Your task to perform on an android device: Open network settings Image 0: 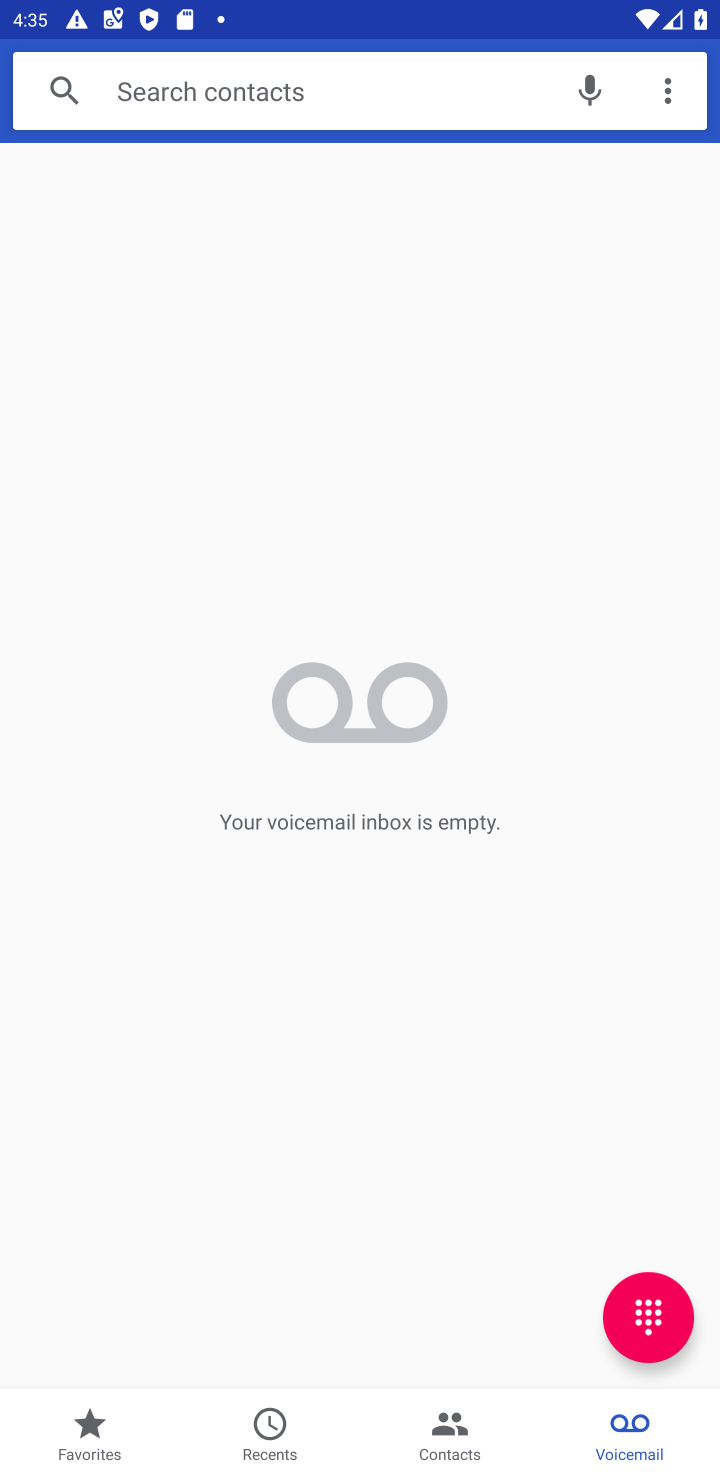
Step 0: press home button
Your task to perform on an android device: Open network settings Image 1: 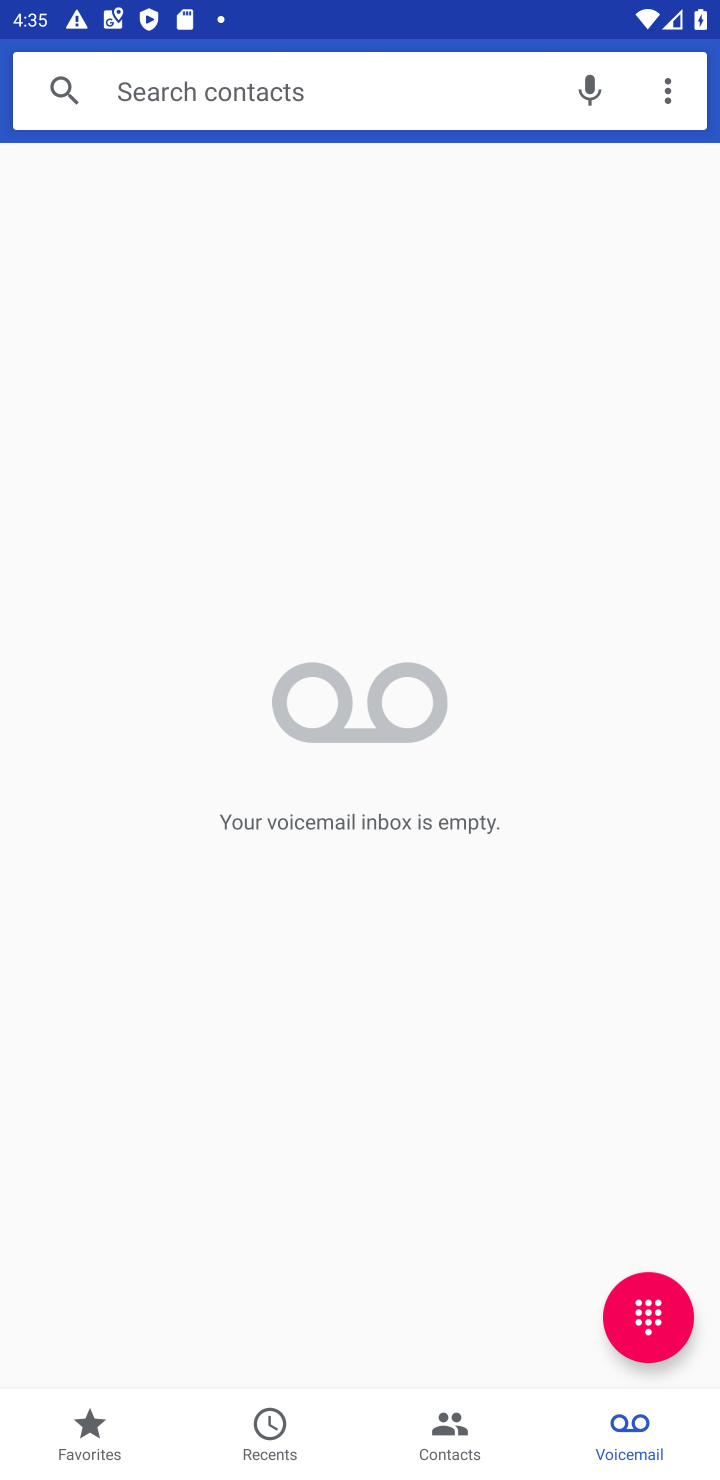
Step 1: press home button
Your task to perform on an android device: Open network settings Image 2: 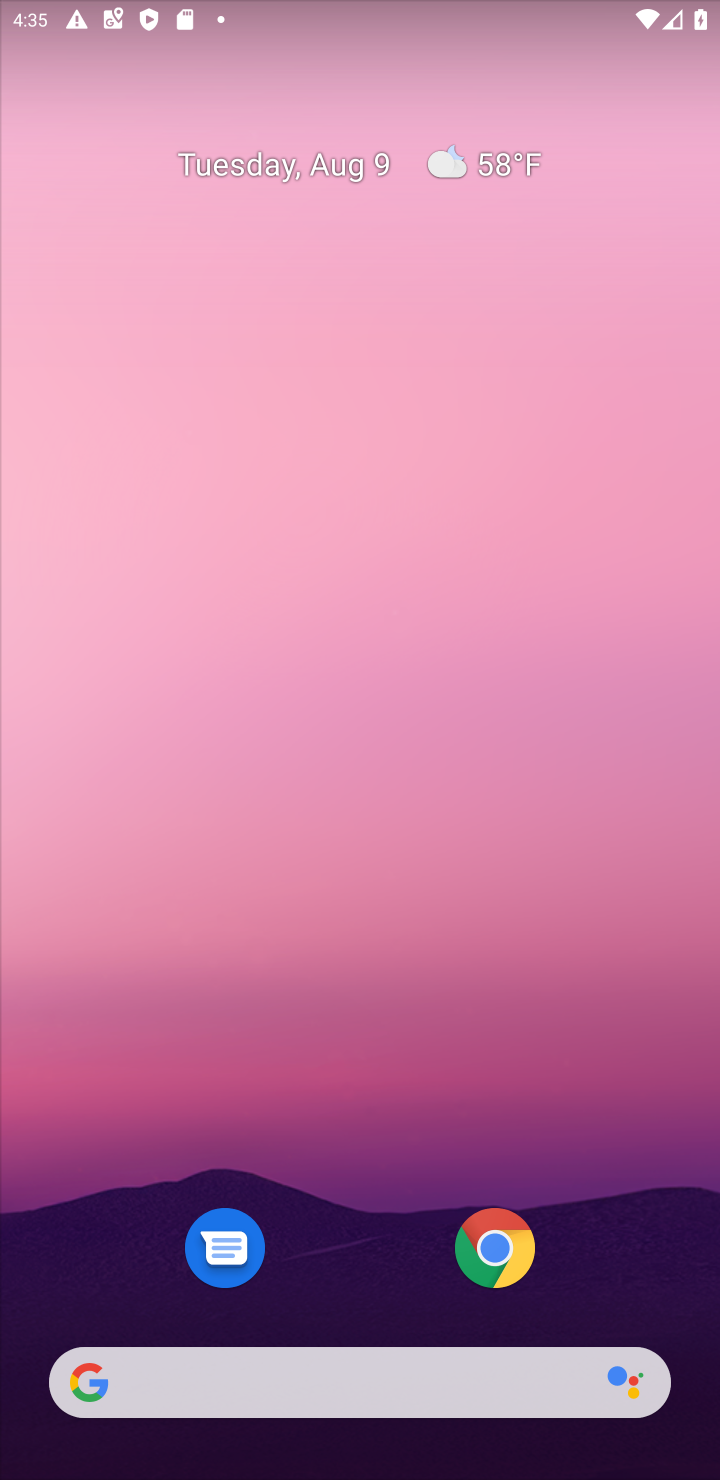
Step 2: drag from (362, 1201) to (188, 446)
Your task to perform on an android device: Open network settings Image 3: 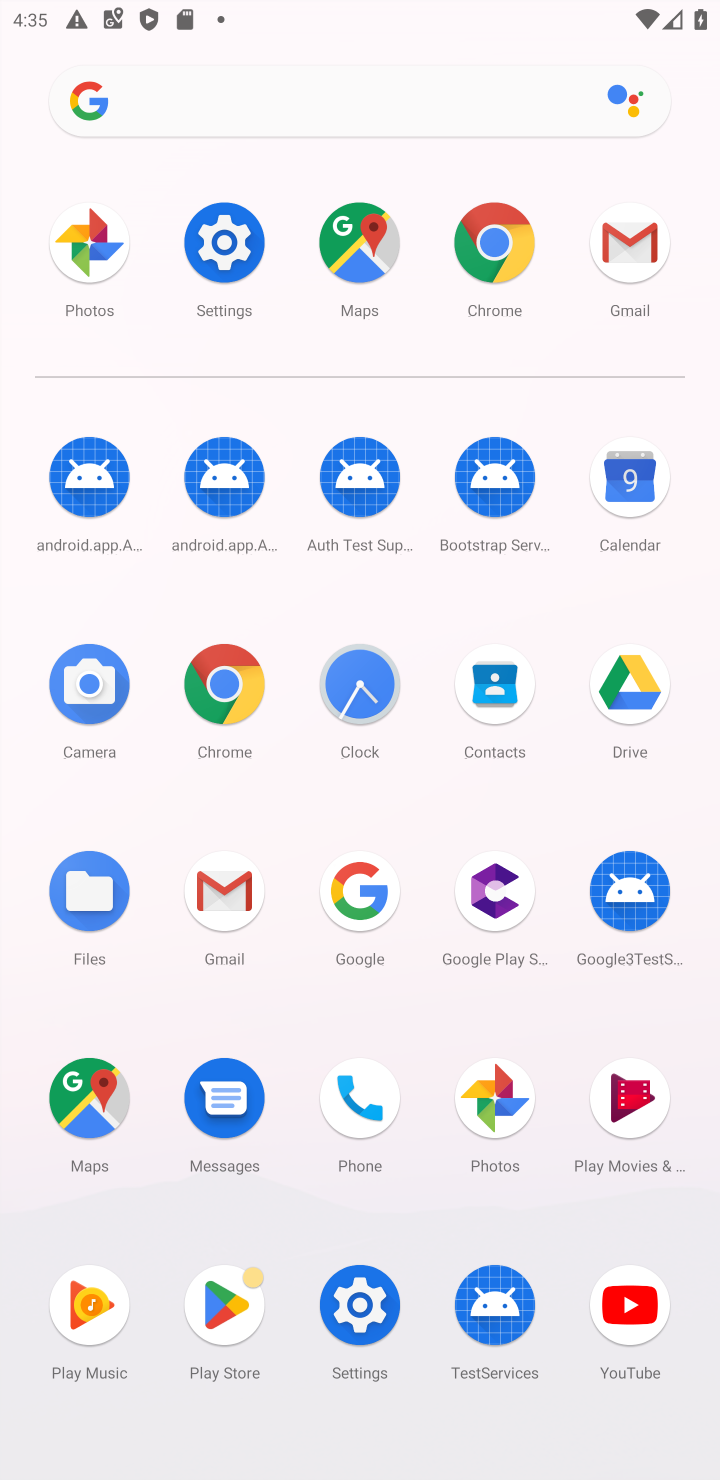
Step 3: click (337, 1297)
Your task to perform on an android device: Open network settings Image 4: 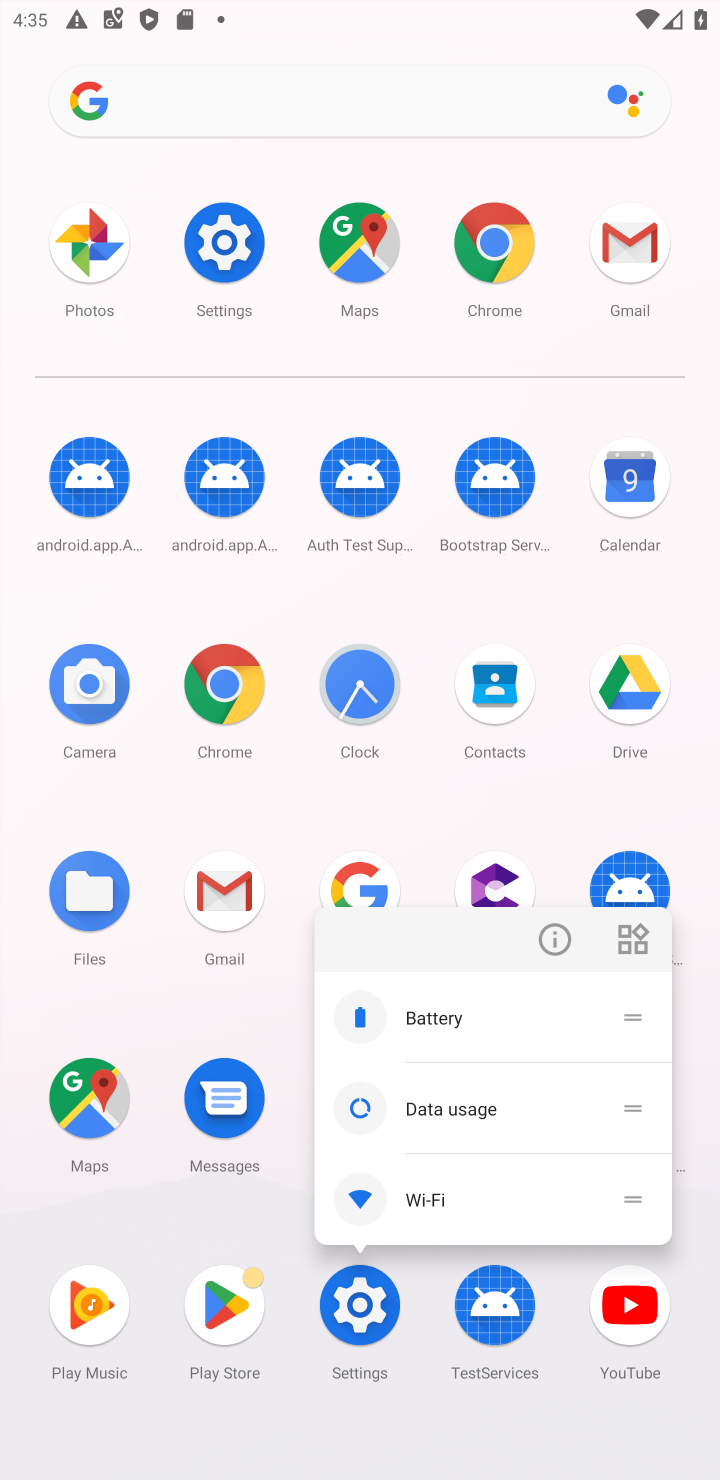
Step 4: click (374, 1301)
Your task to perform on an android device: Open network settings Image 5: 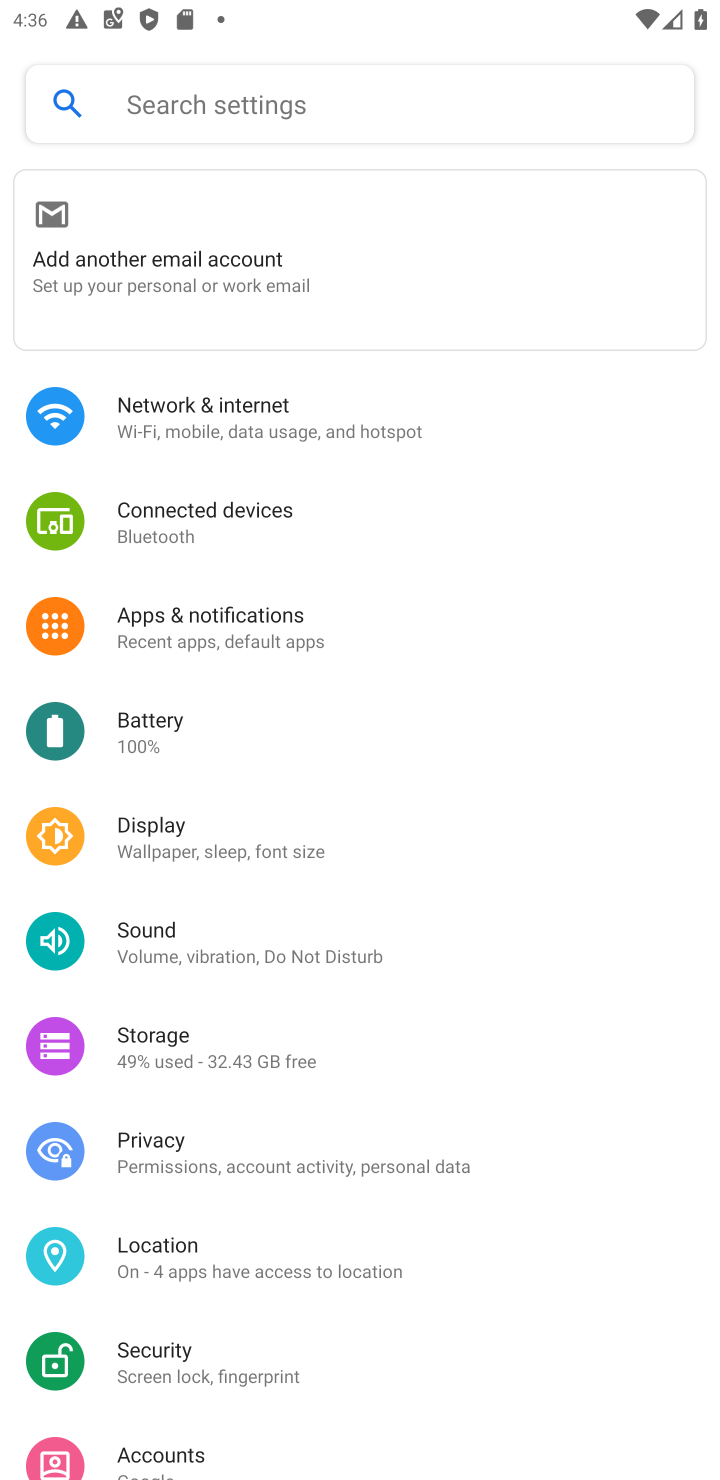
Step 5: click (283, 417)
Your task to perform on an android device: Open network settings Image 6: 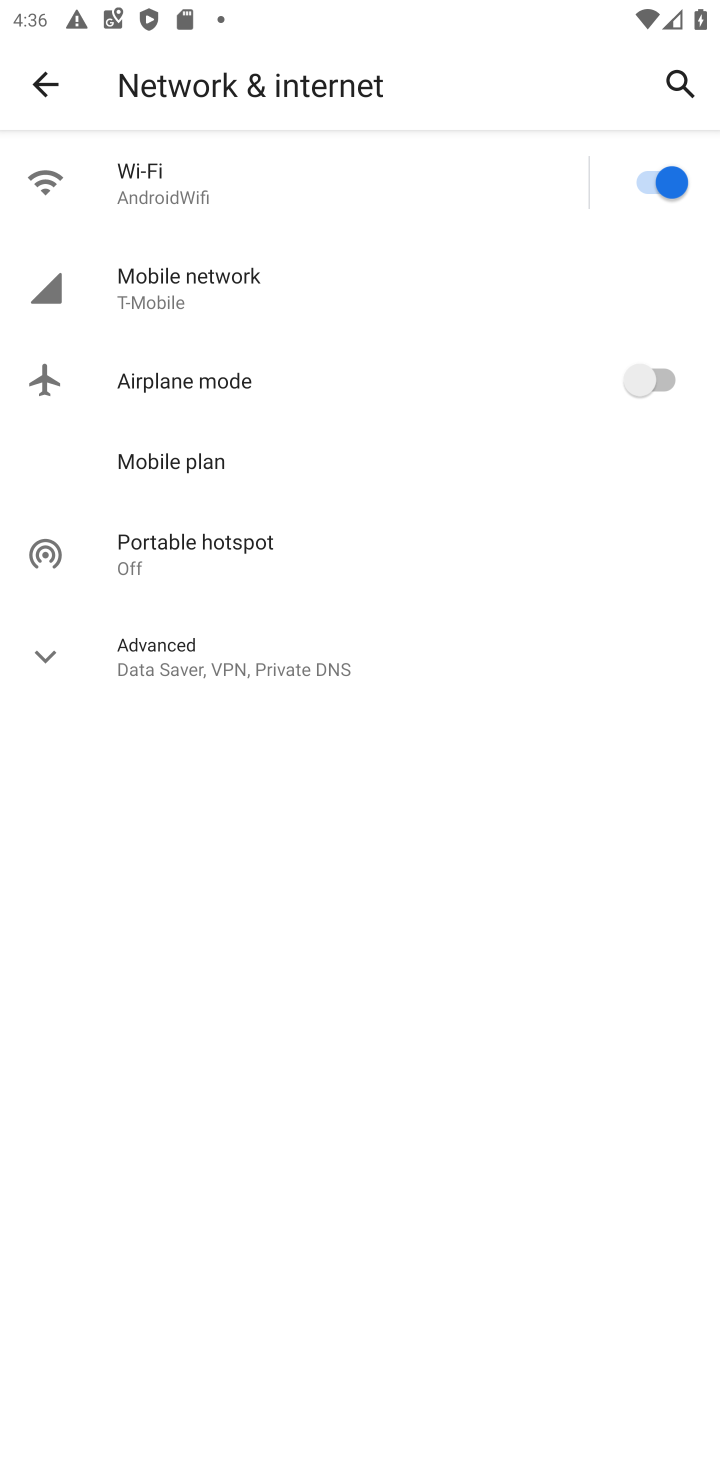
Step 6: task complete